Your task to perform on an android device: toggle sleep mode Image 0: 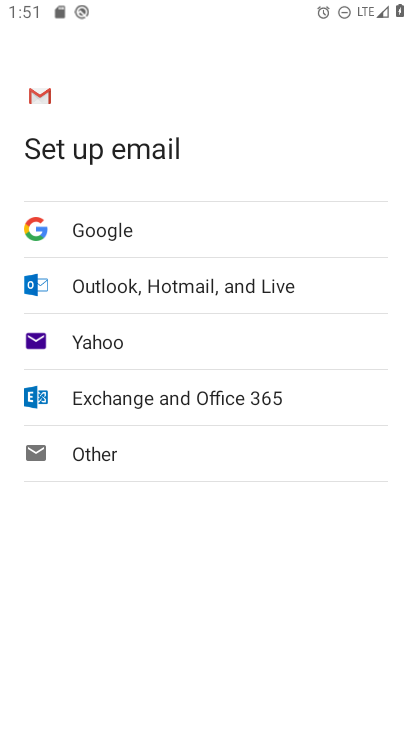
Step 0: press home button
Your task to perform on an android device: toggle sleep mode Image 1: 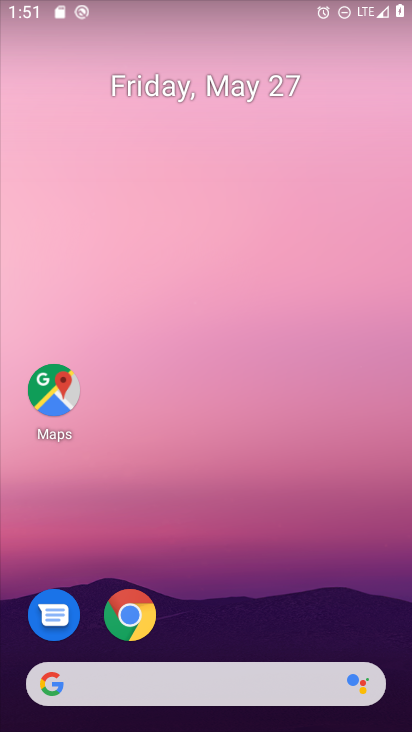
Step 1: drag from (278, 668) to (378, 27)
Your task to perform on an android device: toggle sleep mode Image 2: 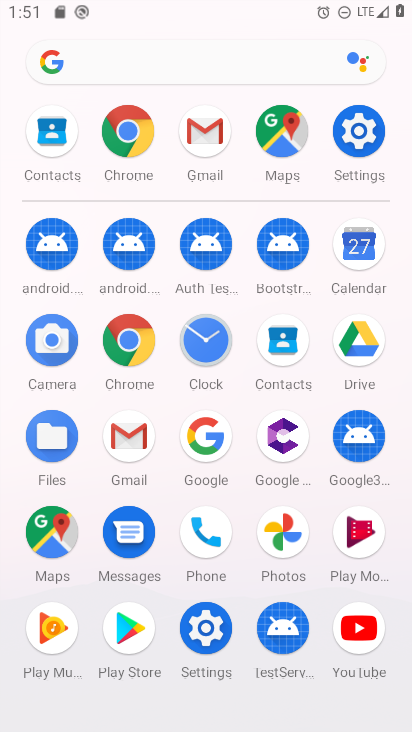
Step 2: click (361, 131)
Your task to perform on an android device: toggle sleep mode Image 3: 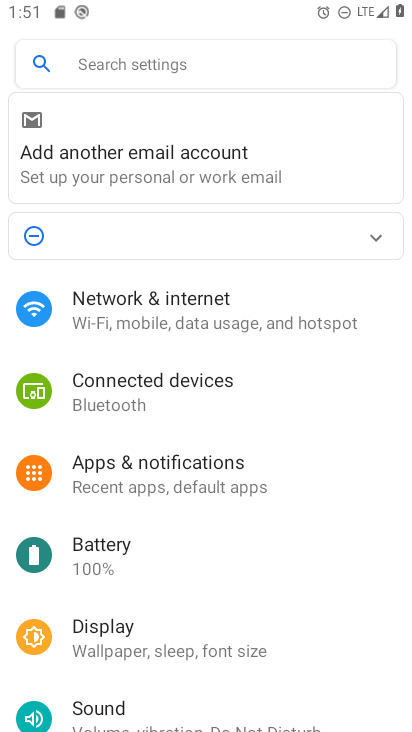
Step 3: click (208, 642)
Your task to perform on an android device: toggle sleep mode Image 4: 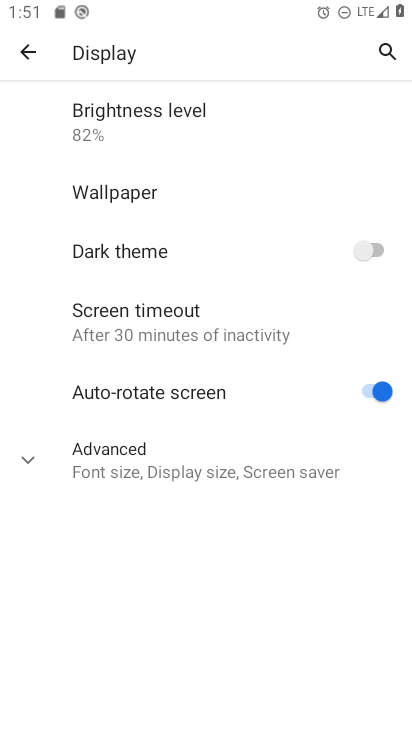
Step 4: task complete